Your task to perform on an android device: turn off location Image 0: 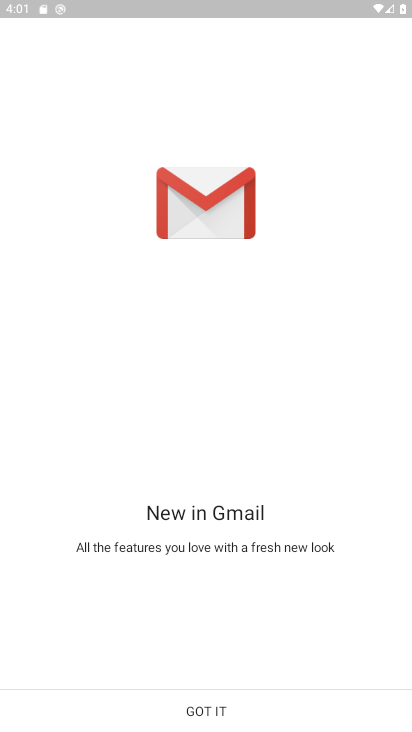
Step 0: press home button
Your task to perform on an android device: turn off location Image 1: 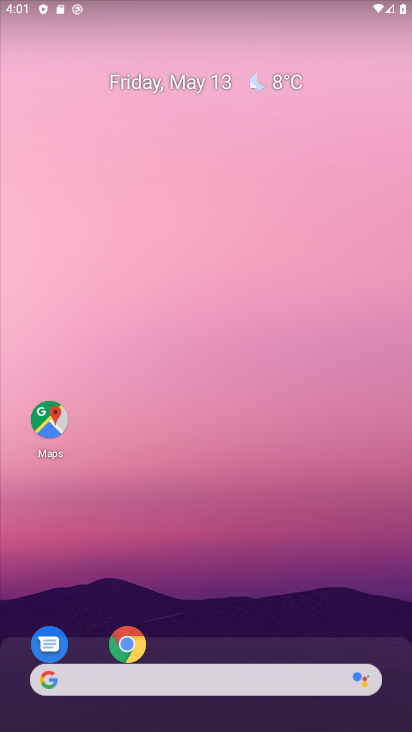
Step 1: drag from (238, 642) to (291, 195)
Your task to perform on an android device: turn off location Image 2: 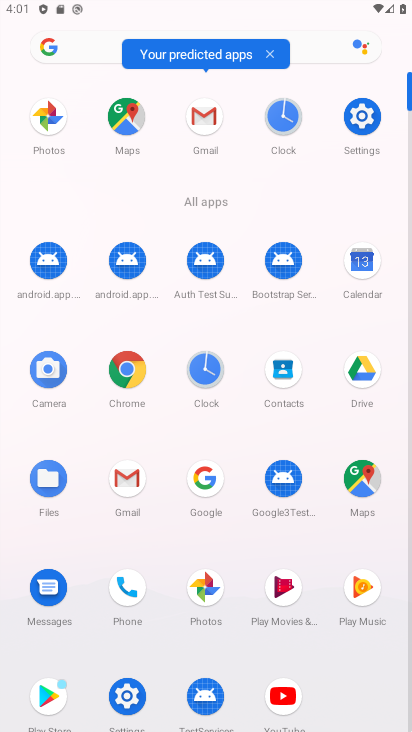
Step 2: click (356, 131)
Your task to perform on an android device: turn off location Image 3: 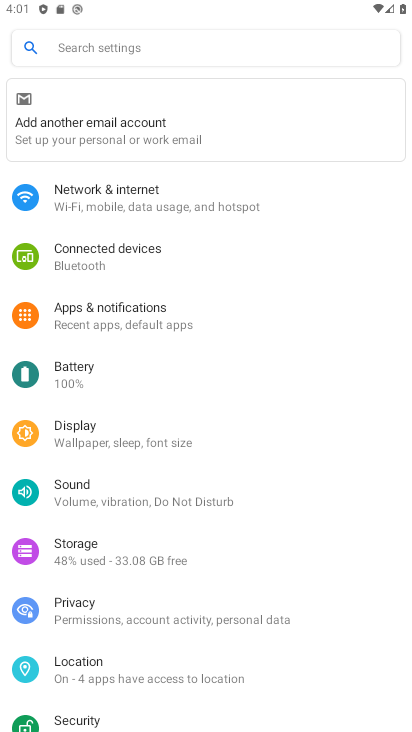
Step 3: click (124, 663)
Your task to perform on an android device: turn off location Image 4: 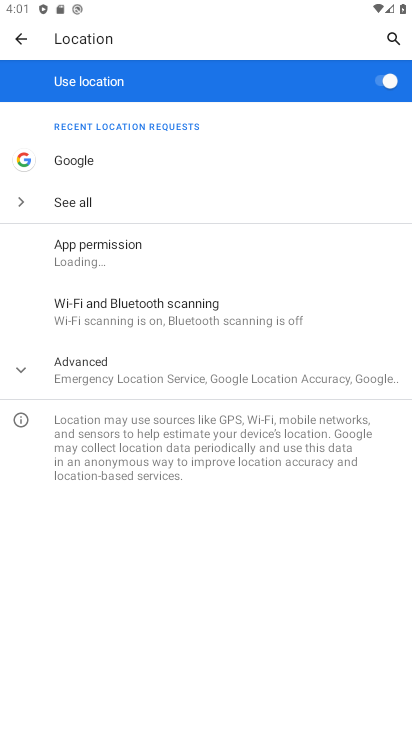
Step 4: click (388, 76)
Your task to perform on an android device: turn off location Image 5: 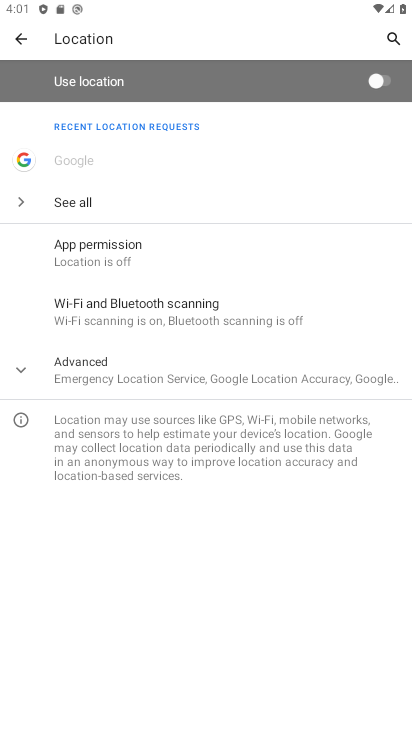
Step 5: task complete